Your task to perform on an android device: add a label to a message in the gmail app Image 0: 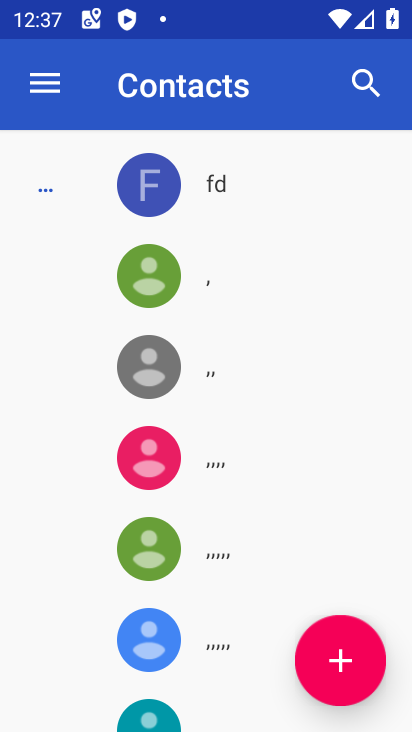
Step 0: press home button
Your task to perform on an android device: add a label to a message in the gmail app Image 1: 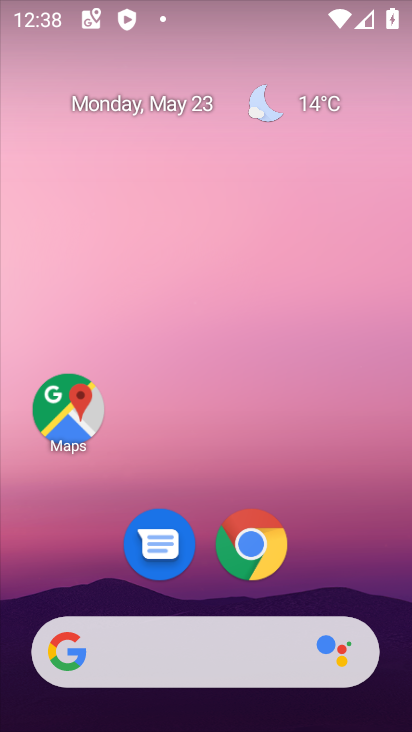
Step 1: drag from (339, 554) to (309, 127)
Your task to perform on an android device: add a label to a message in the gmail app Image 2: 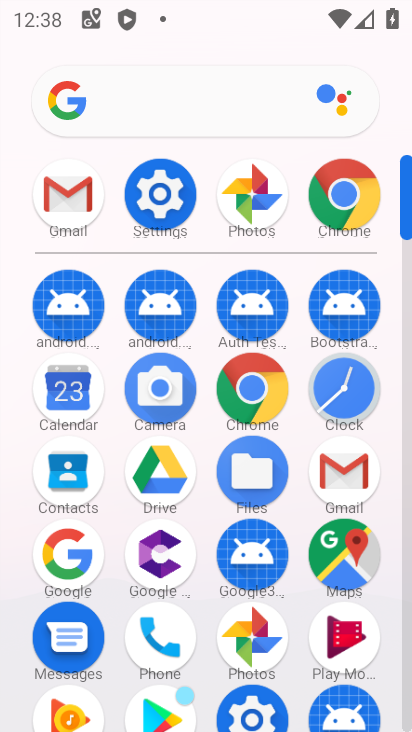
Step 2: click (69, 188)
Your task to perform on an android device: add a label to a message in the gmail app Image 3: 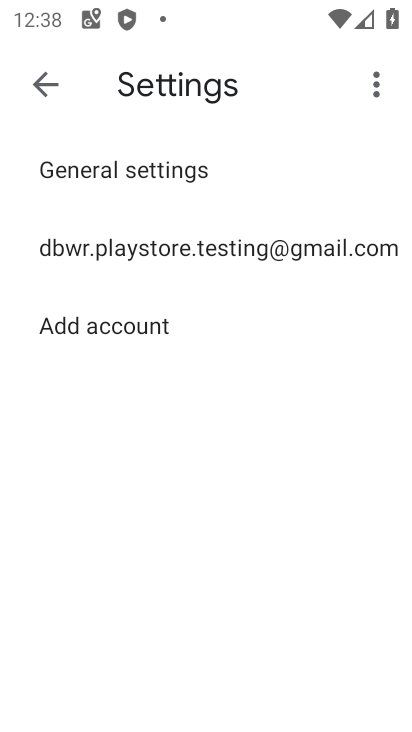
Step 3: click (42, 86)
Your task to perform on an android device: add a label to a message in the gmail app Image 4: 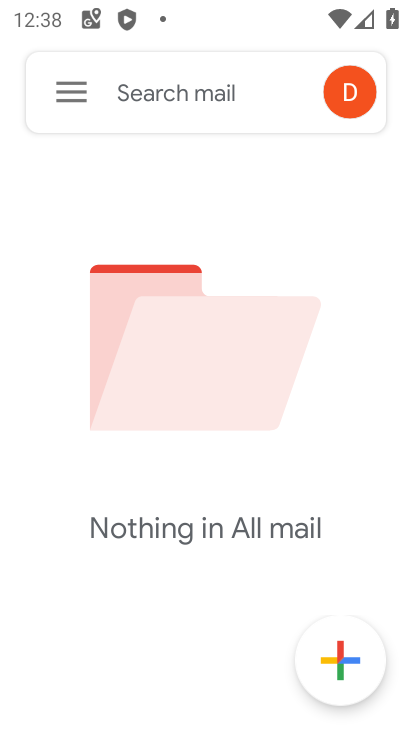
Step 4: task complete